Your task to perform on an android device: turn off notifications in google photos Image 0: 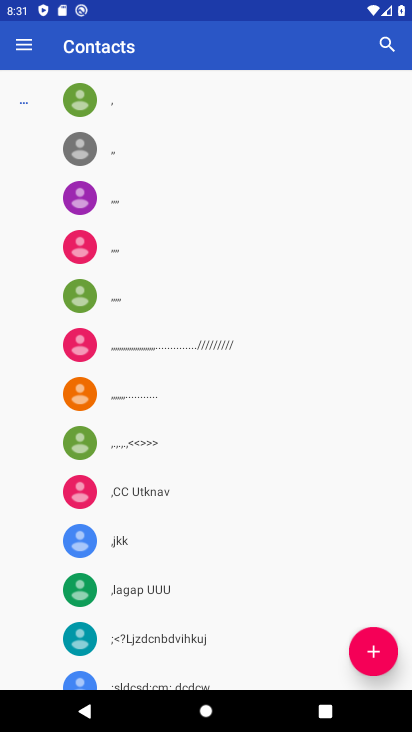
Step 0: press home button
Your task to perform on an android device: turn off notifications in google photos Image 1: 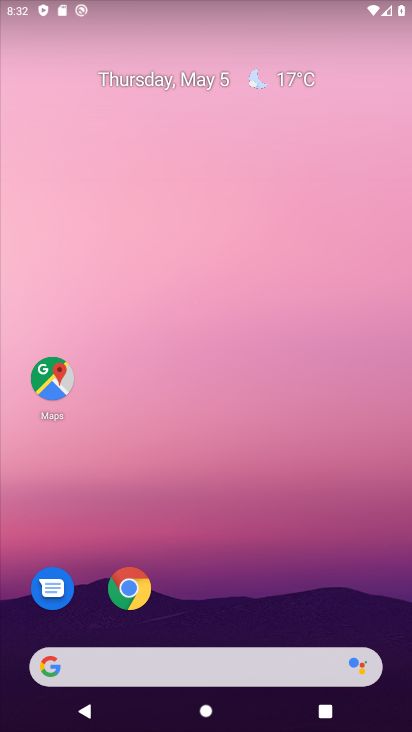
Step 1: drag from (232, 604) to (242, 270)
Your task to perform on an android device: turn off notifications in google photos Image 2: 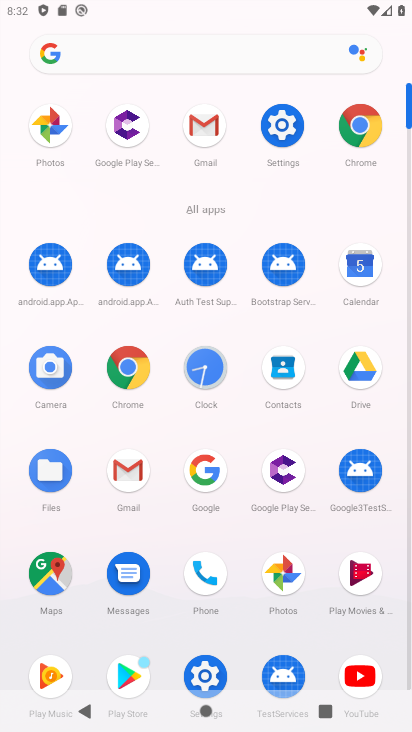
Step 2: click (271, 571)
Your task to perform on an android device: turn off notifications in google photos Image 3: 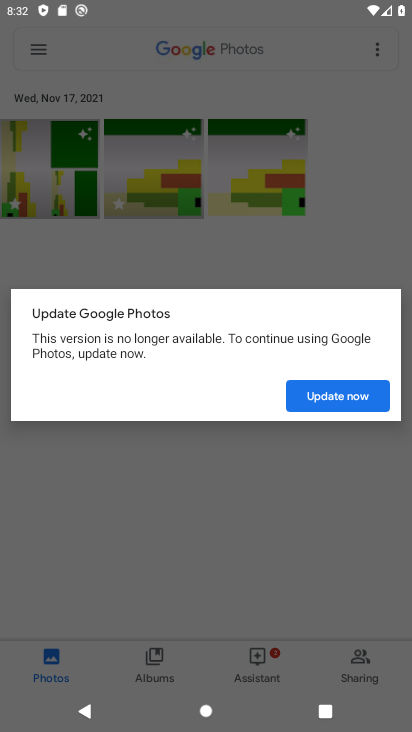
Step 3: click (306, 405)
Your task to perform on an android device: turn off notifications in google photos Image 4: 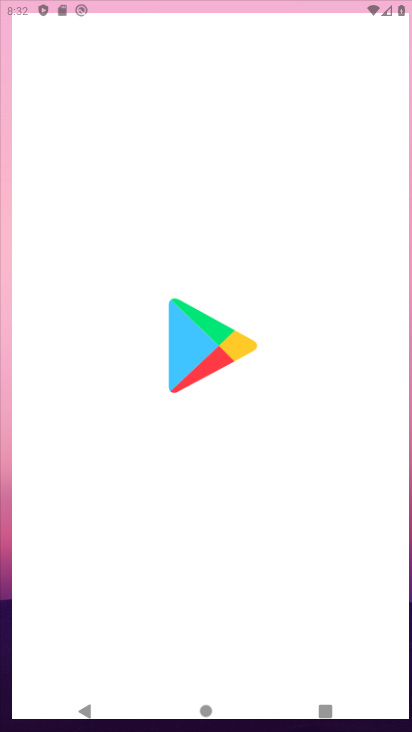
Step 4: click (307, 394)
Your task to perform on an android device: turn off notifications in google photos Image 5: 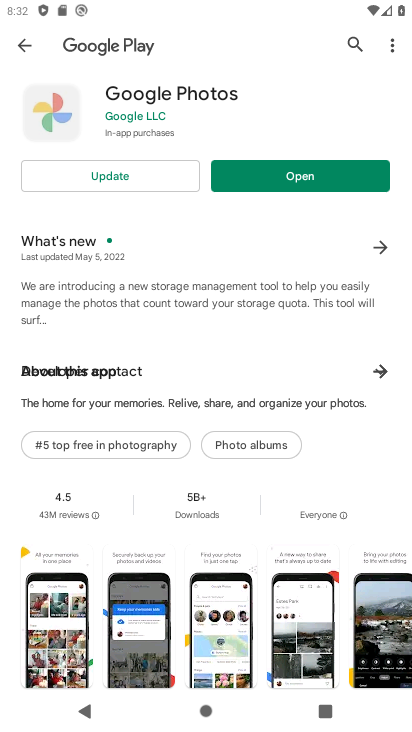
Step 5: press back button
Your task to perform on an android device: turn off notifications in google photos Image 6: 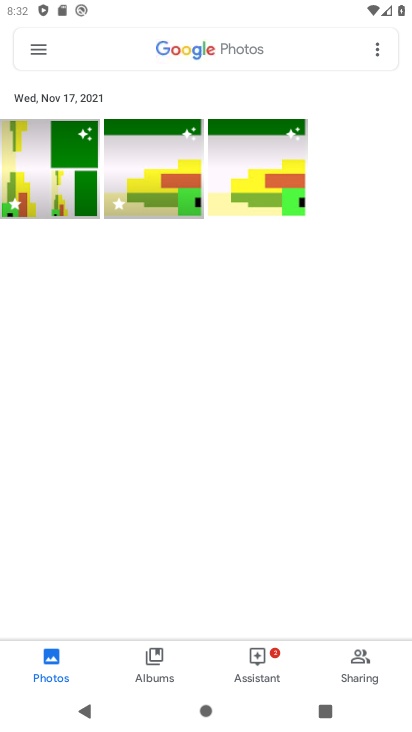
Step 6: click (37, 48)
Your task to perform on an android device: turn off notifications in google photos Image 7: 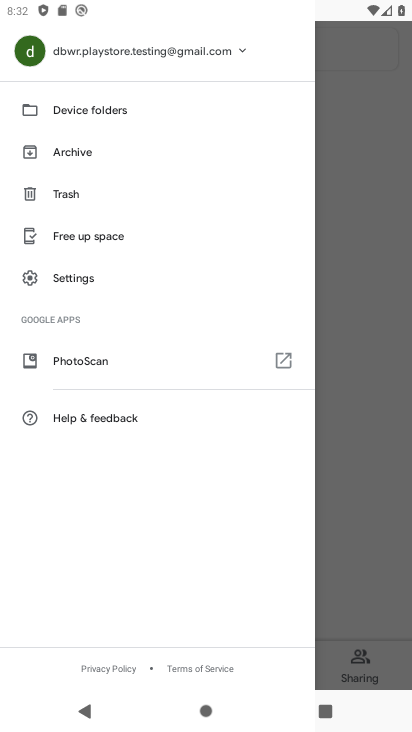
Step 7: click (93, 281)
Your task to perform on an android device: turn off notifications in google photos Image 8: 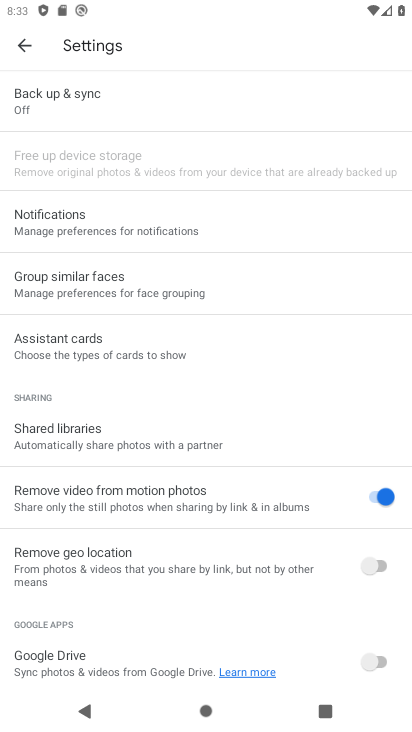
Step 8: click (105, 221)
Your task to perform on an android device: turn off notifications in google photos Image 9: 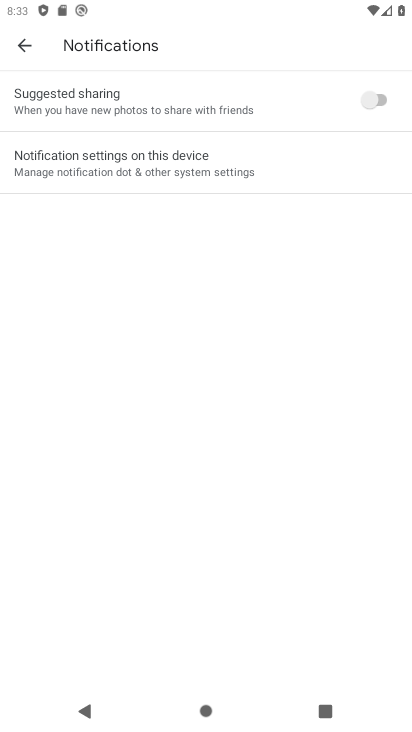
Step 9: click (105, 165)
Your task to perform on an android device: turn off notifications in google photos Image 10: 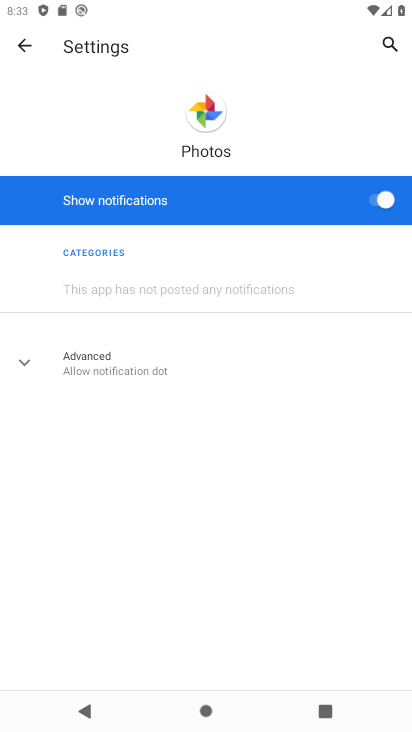
Step 10: click (381, 193)
Your task to perform on an android device: turn off notifications in google photos Image 11: 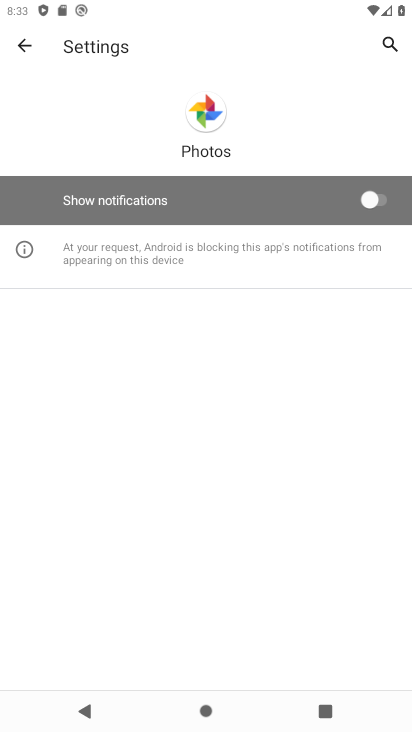
Step 11: task complete